Your task to perform on an android device: clear history in the chrome app Image 0: 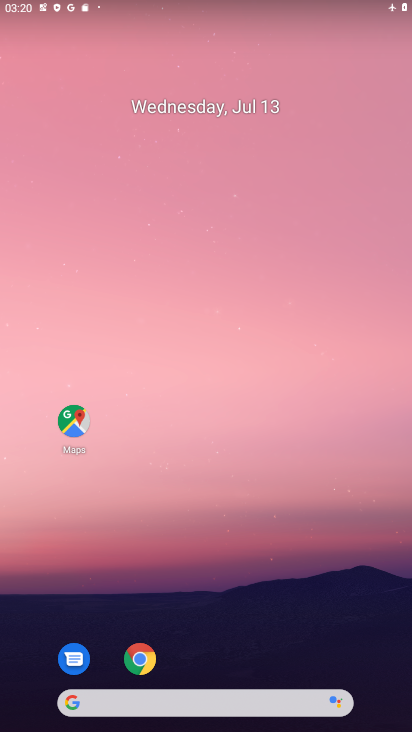
Step 0: click (139, 648)
Your task to perform on an android device: clear history in the chrome app Image 1: 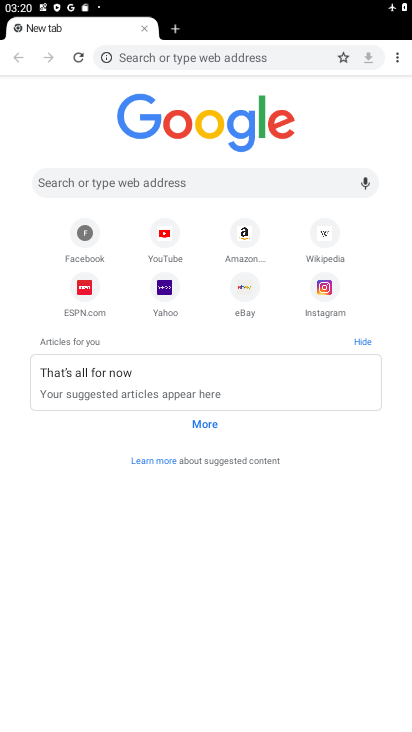
Step 1: click (392, 63)
Your task to perform on an android device: clear history in the chrome app Image 2: 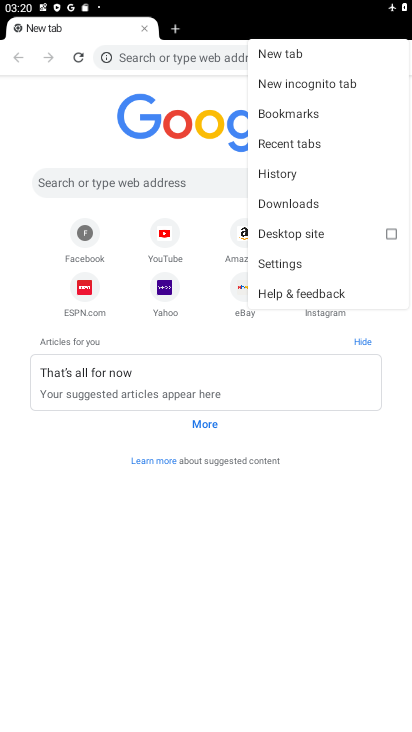
Step 2: click (300, 259)
Your task to perform on an android device: clear history in the chrome app Image 3: 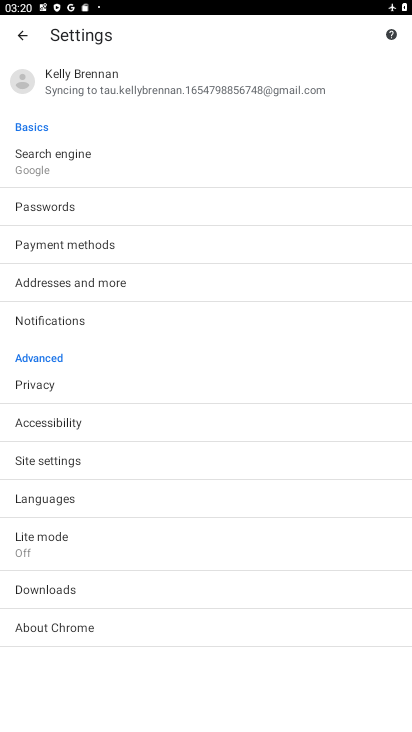
Step 3: click (25, 41)
Your task to perform on an android device: clear history in the chrome app Image 4: 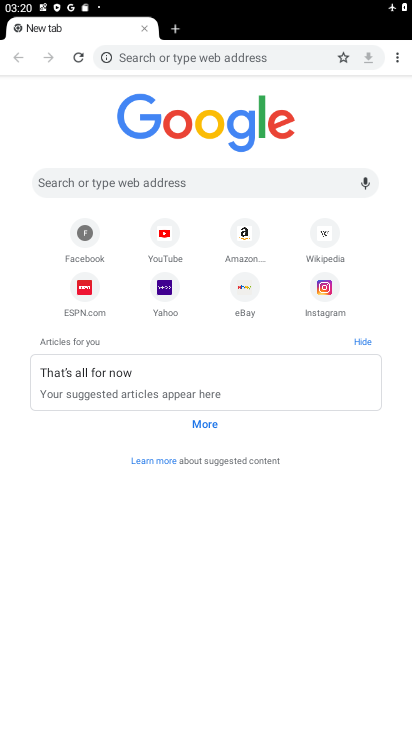
Step 4: click (390, 55)
Your task to perform on an android device: clear history in the chrome app Image 5: 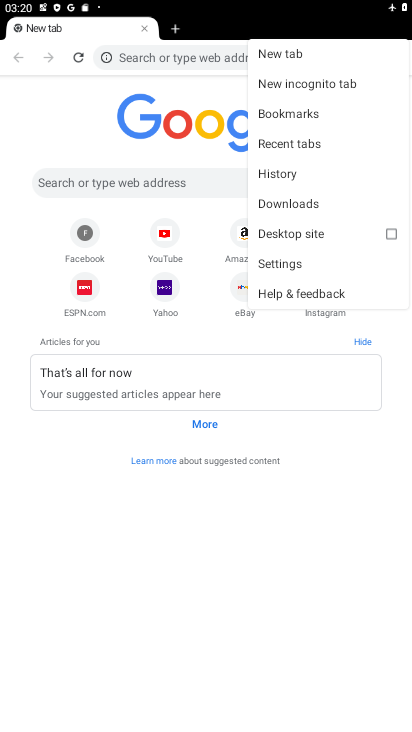
Step 5: click (286, 254)
Your task to perform on an android device: clear history in the chrome app Image 6: 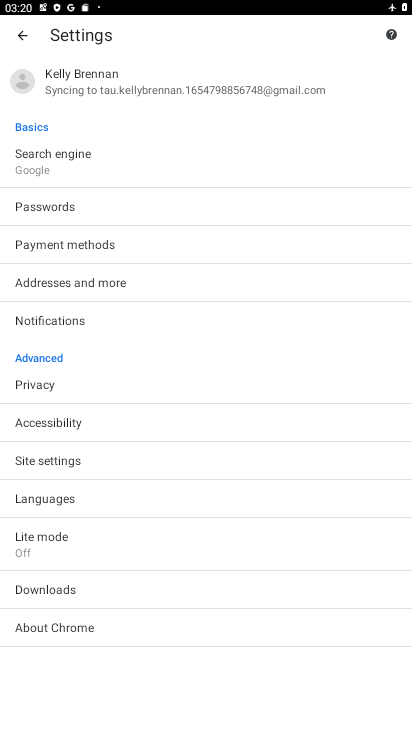
Step 6: click (24, 36)
Your task to perform on an android device: clear history in the chrome app Image 7: 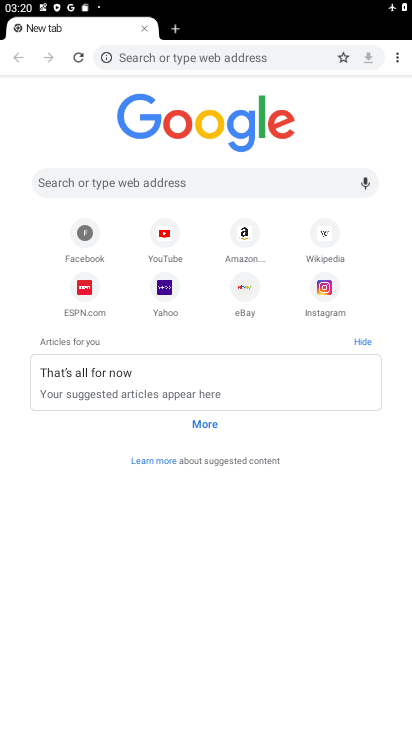
Step 7: click (401, 54)
Your task to perform on an android device: clear history in the chrome app Image 8: 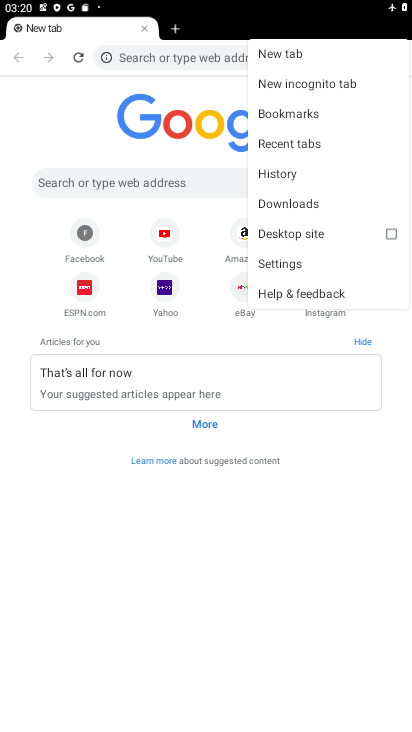
Step 8: click (304, 169)
Your task to perform on an android device: clear history in the chrome app Image 9: 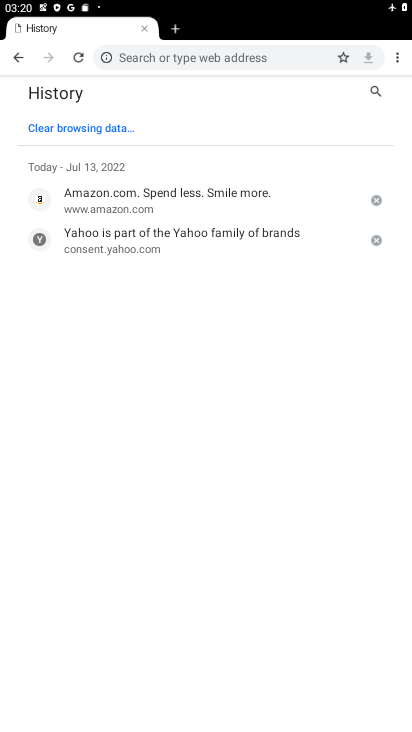
Step 9: click (123, 131)
Your task to perform on an android device: clear history in the chrome app Image 10: 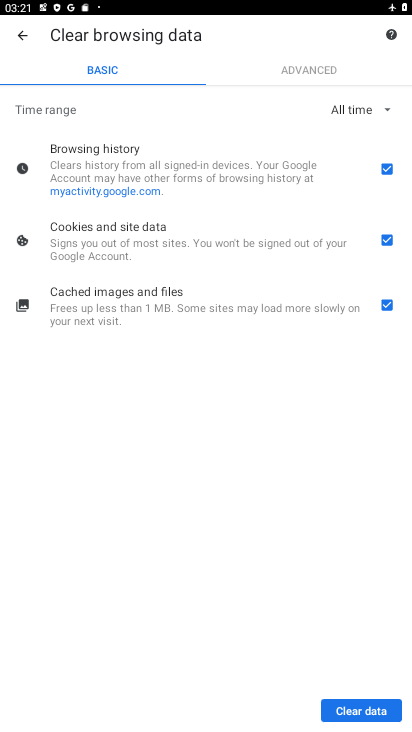
Step 10: click (371, 710)
Your task to perform on an android device: clear history in the chrome app Image 11: 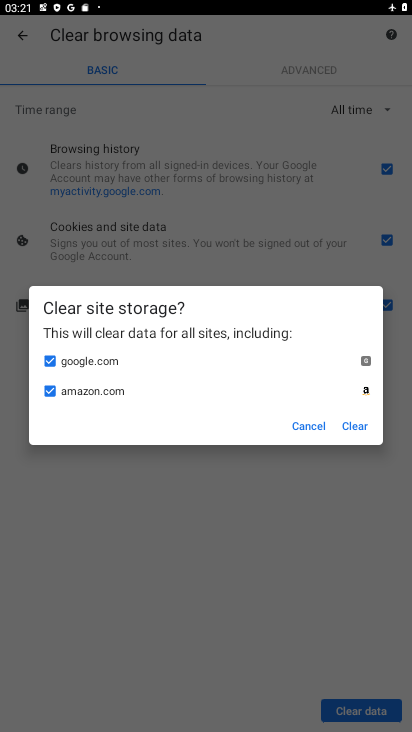
Step 11: click (348, 421)
Your task to perform on an android device: clear history in the chrome app Image 12: 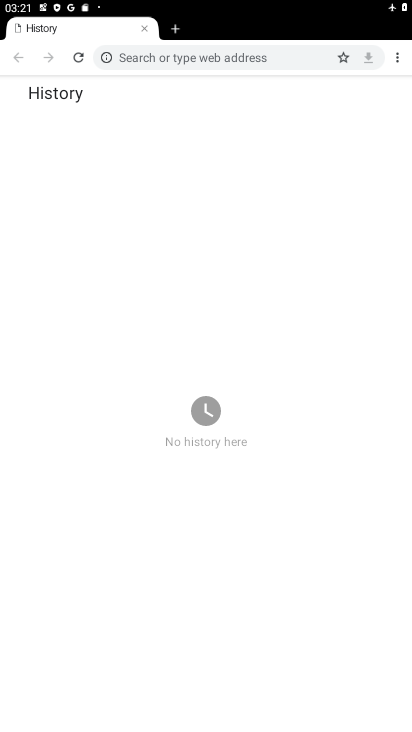
Step 12: task complete